Your task to perform on an android device: Go to battery settings Image 0: 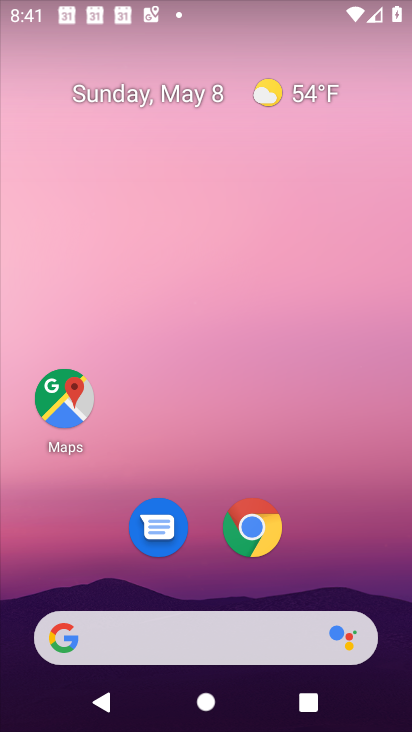
Step 0: drag from (332, 576) to (303, 40)
Your task to perform on an android device: Go to battery settings Image 1: 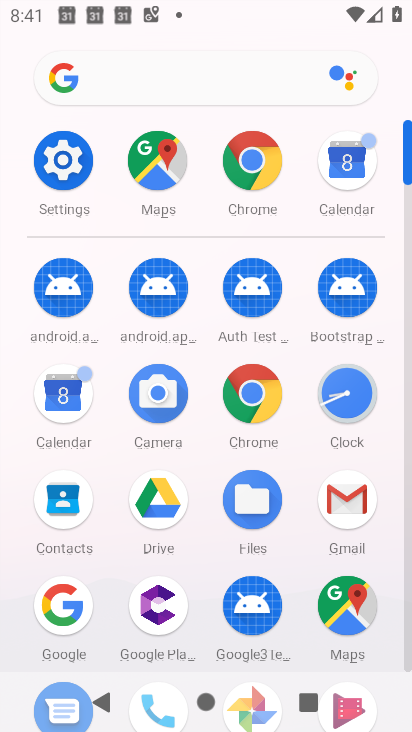
Step 1: click (74, 153)
Your task to perform on an android device: Go to battery settings Image 2: 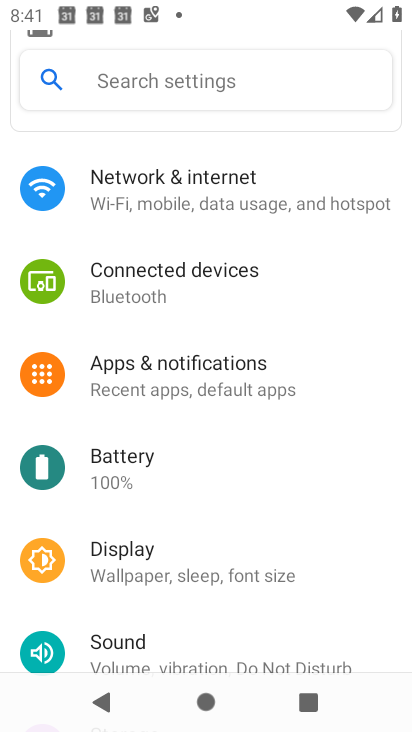
Step 2: click (130, 452)
Your task to perform on an android device: Go to battery settings Image 3: 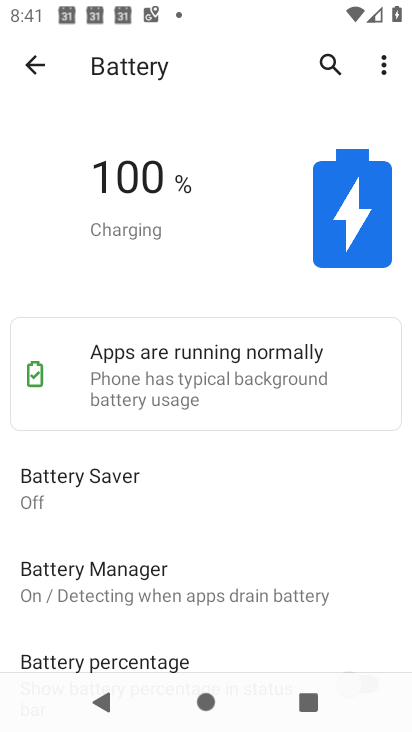
Step 3: task complete